Your task to perform on an android device: Show me popular videos on Youtube Image 0: 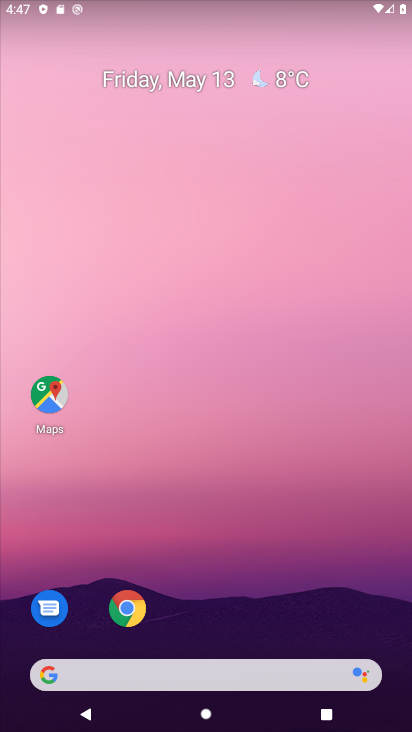
Step 0: drag from (225, 608) to (288, 135)
Your task to perform on an android device: Show me popular videos on Youtube Image 1: 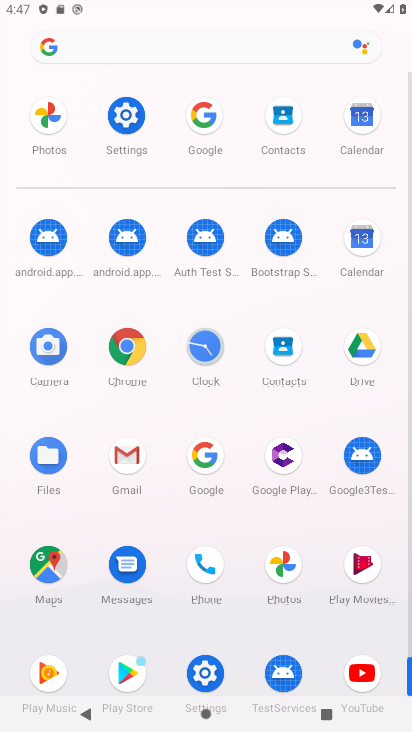
Step 1: click (364, 674)
Your task to perform on an android device: Show me popular videos on Youtube Image 2: 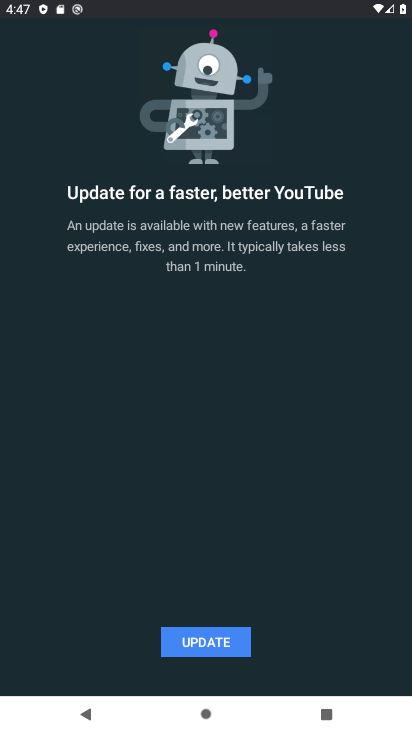
Step 2: click (205, 637)
Your task to perform on an android device: Show me popular videos on Youtube Image 3: 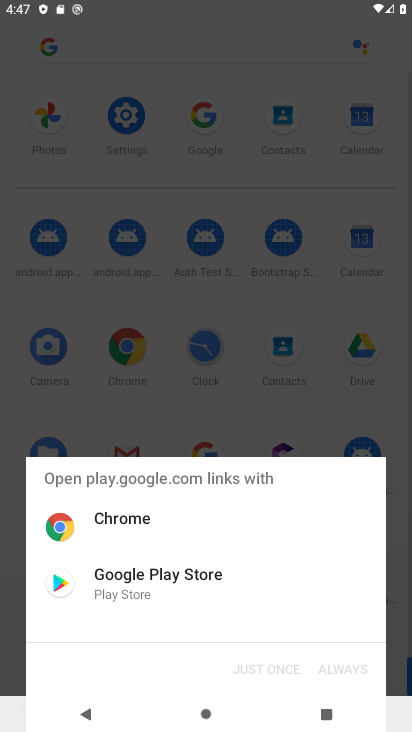
Step 3: click (139, 571)
Your task to perform on an android device: Show me popular videos on Youtube Image 4: 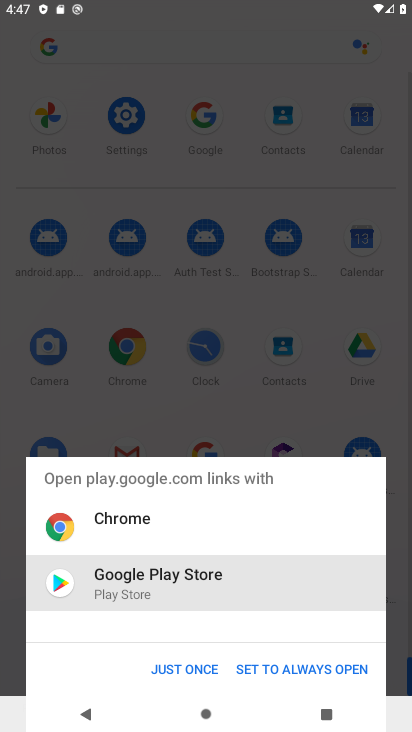
Step 4: click (195, 662)
Your task to perform on an android device: Show me popular videos on Youtube Image 5: 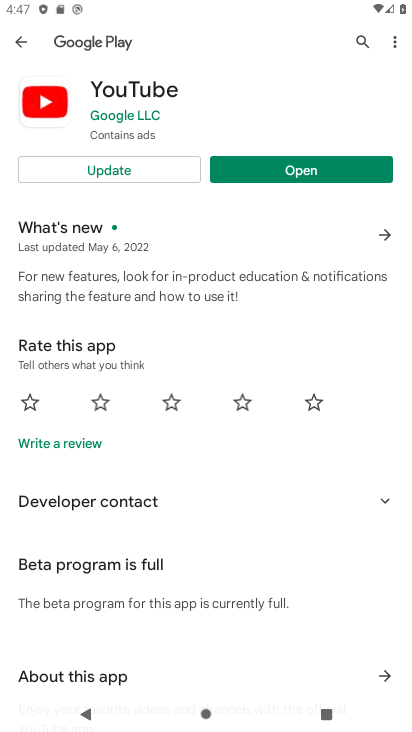
Step 5: click (156, 179)
Your task to perform on an android device: Show me popular videos on Youtube Image 6: 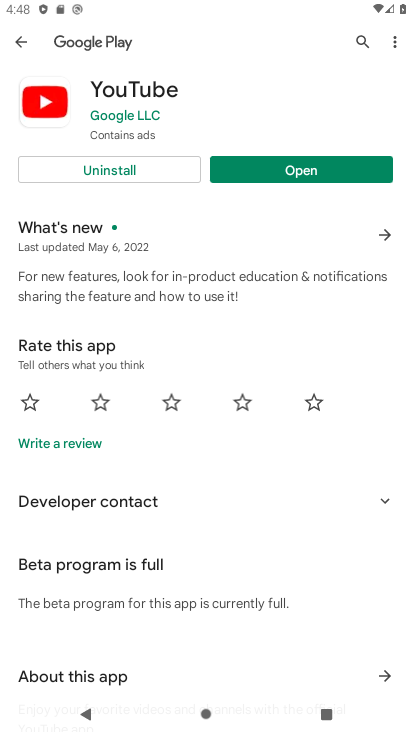
Step 6: click (290, 169)
Your task to perform on an android device: Show me popular videos on Youtube Image 7: 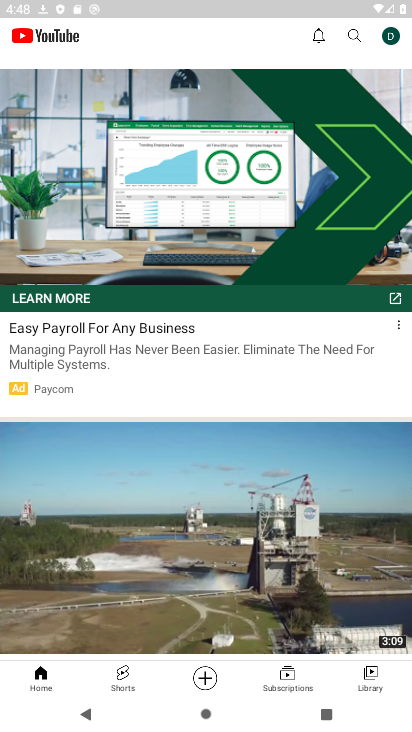
Step 7: click (350, 39)
Your task to perform on an android device: Show me popular videos on Youtube Image 8: 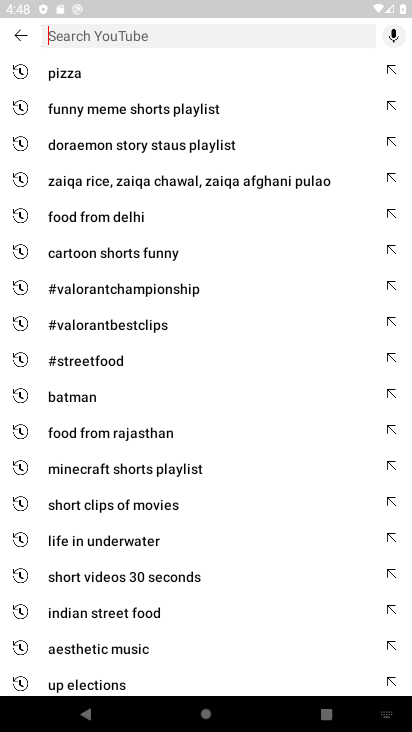
Step 8: type "popular videos"
Your task to perform on an android device: Show me popular videos on Youtube Image 9: 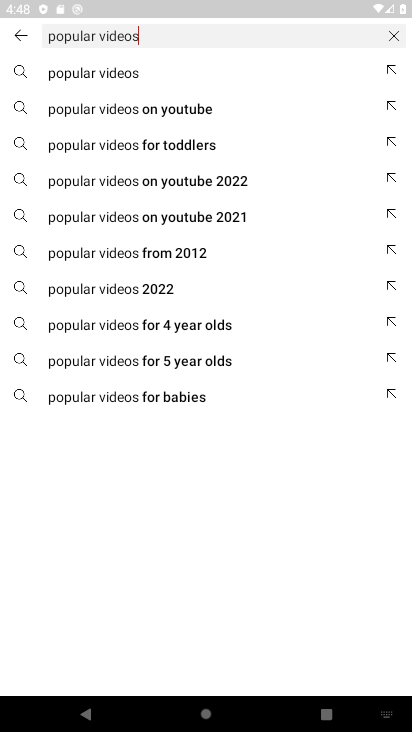
Step 9: click (131, 112)
Your task to perform on an android device: Show me popular videos on Youtube Image 10: 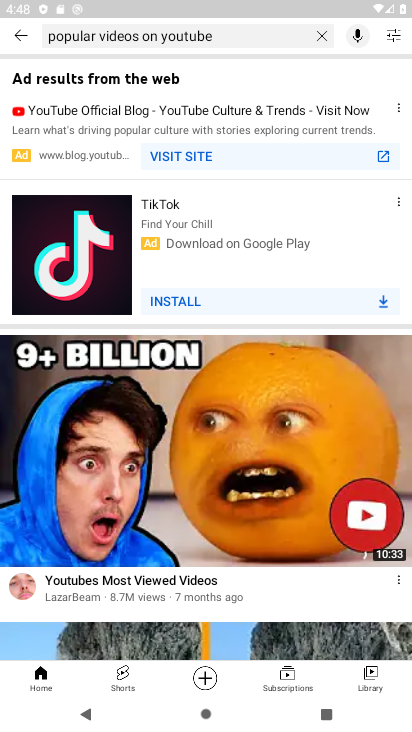
Step 10: task complete